Your task to perform on an android device: Do I have any events today? Image 0: 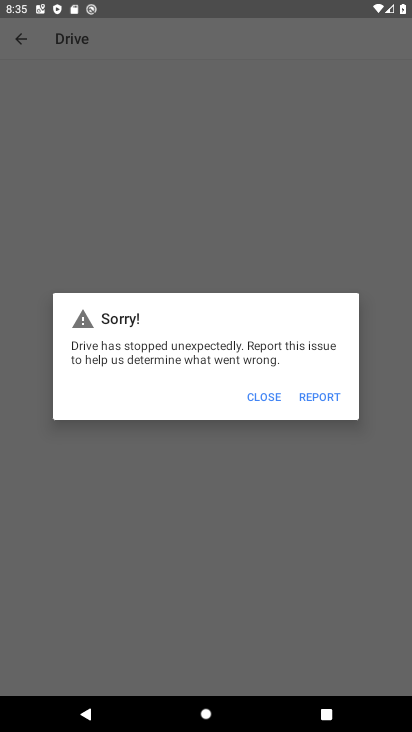
Step 0: press home button
Your task to perform on an android device: Do I have any events today? Image 1: 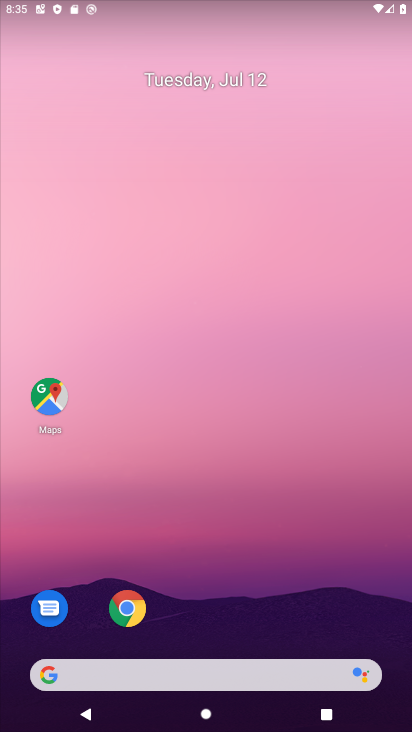
Step 1: click (195, 75)
Your task to perform on an android device: Do I have any events today? Image 2: 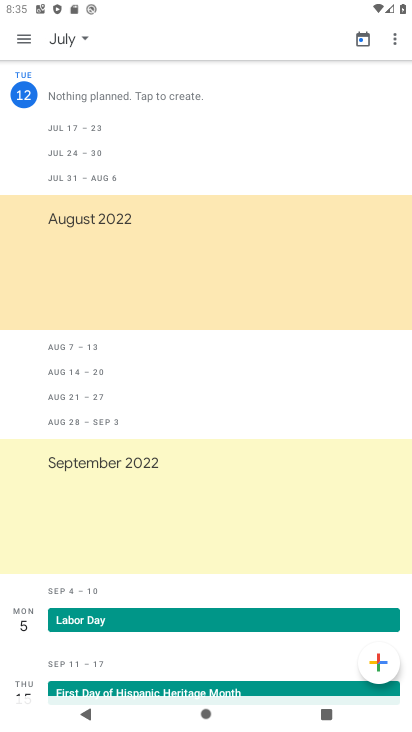
Step 2: click (195, 75)
Your task to perform on an android device: Do I have any events today? Image 3: 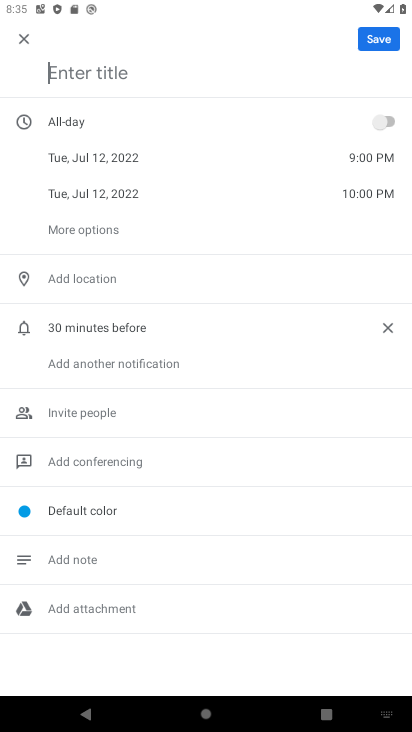
Step 3: click (21, 25)
Your task to perform on an android device: Do I have any events today? Image 4: 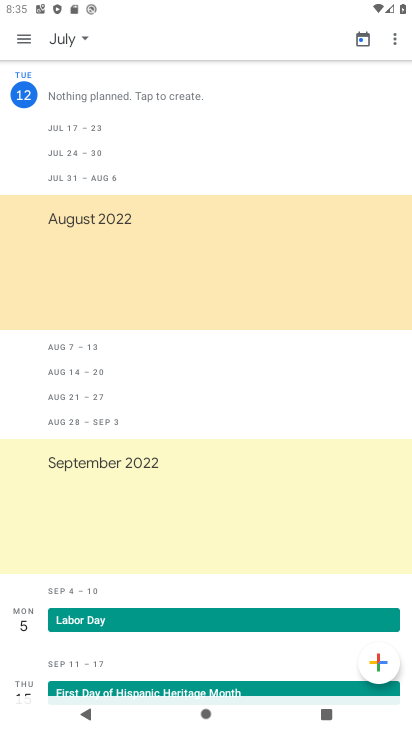
Step 4: click (24, 38)
Your task to perform on an android device: Do I have any events today? Image 5: 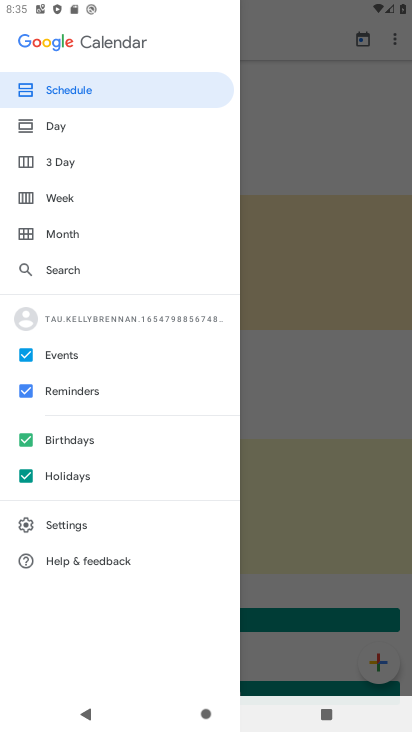
Step 5: click (24, 390)
Your task to perform on an android device: Do I have any events today? Image 6: 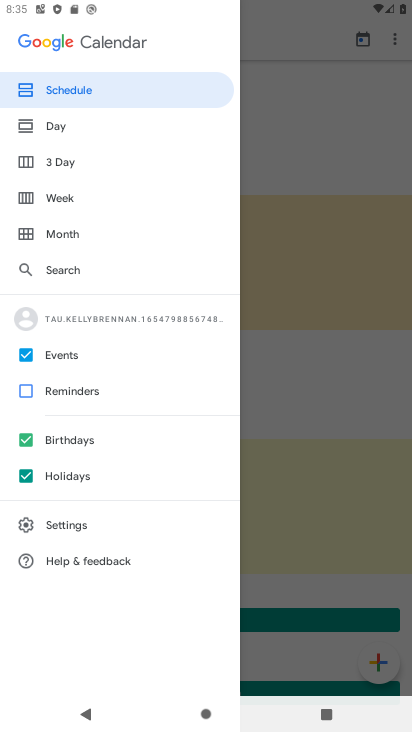
Step 6: click (22, 440)
Your task to perform on an android device: Do I have any events today? Image 7: 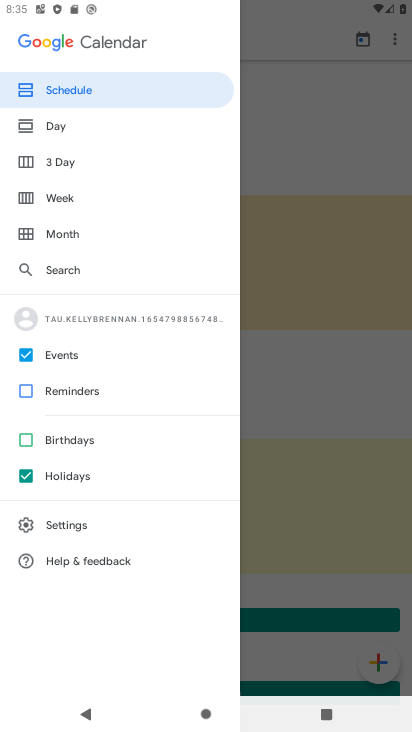
Step 7: click (28, 474)
Your task to perform on an android device: Do I have any events today? Image 8: 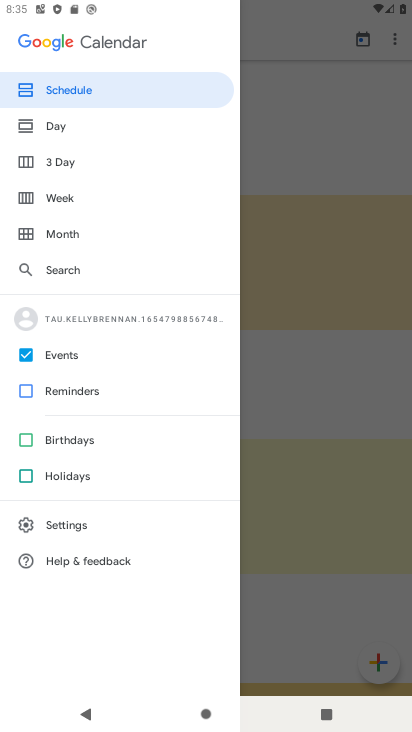
Step 8: task complete